Your task to perform on an android device: Search for beats solo 3 on target.com, select the first entry, add it to the cart, then select checkout. Image 0: 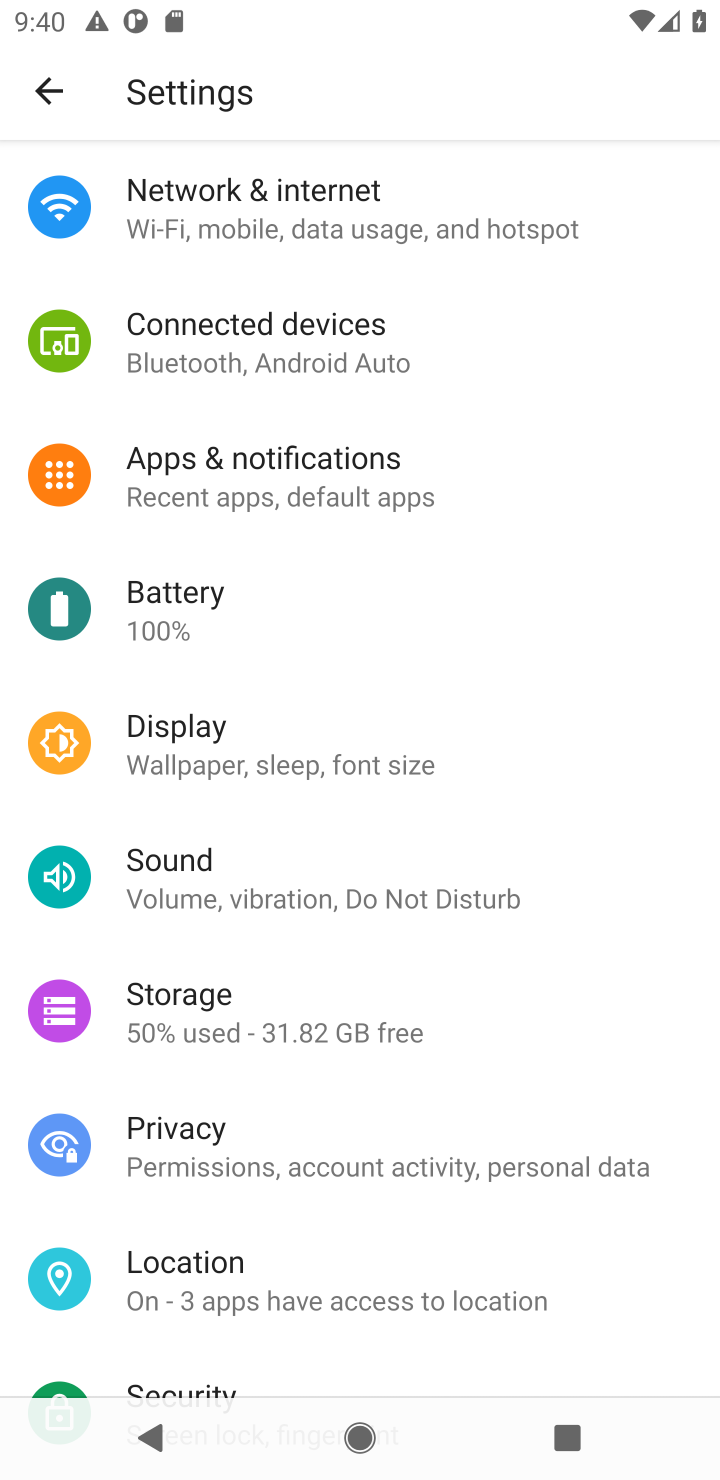
Step 0: press home button
Your task to perform on an android device: Search for beats solo 3 on target.com, select the first entry, add it to the cart, then select checkout. Image 1: 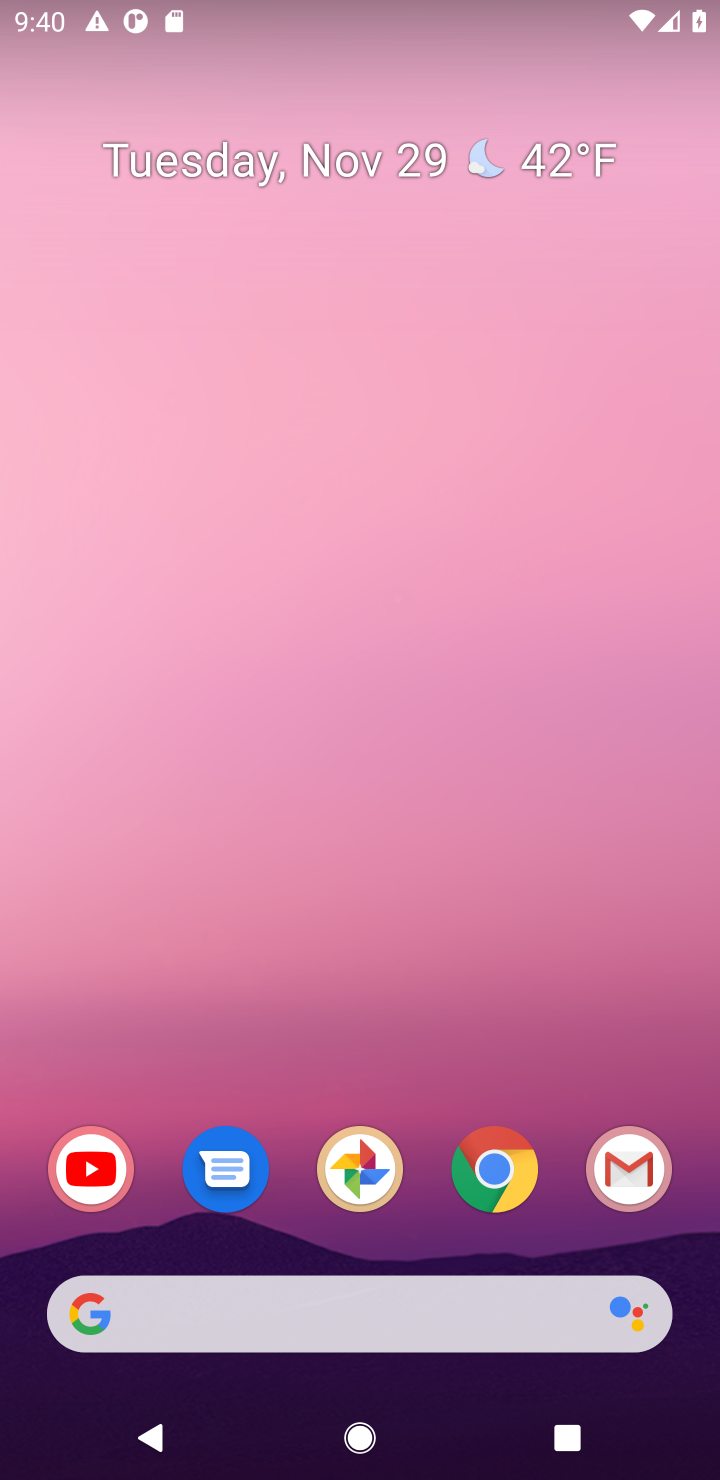
Step 1: click (224, 1344)
Your task to perform on an android device: Search for beats solo 3 on target.com, select the first entry, add it to the cart, then select checkout. Image 2: 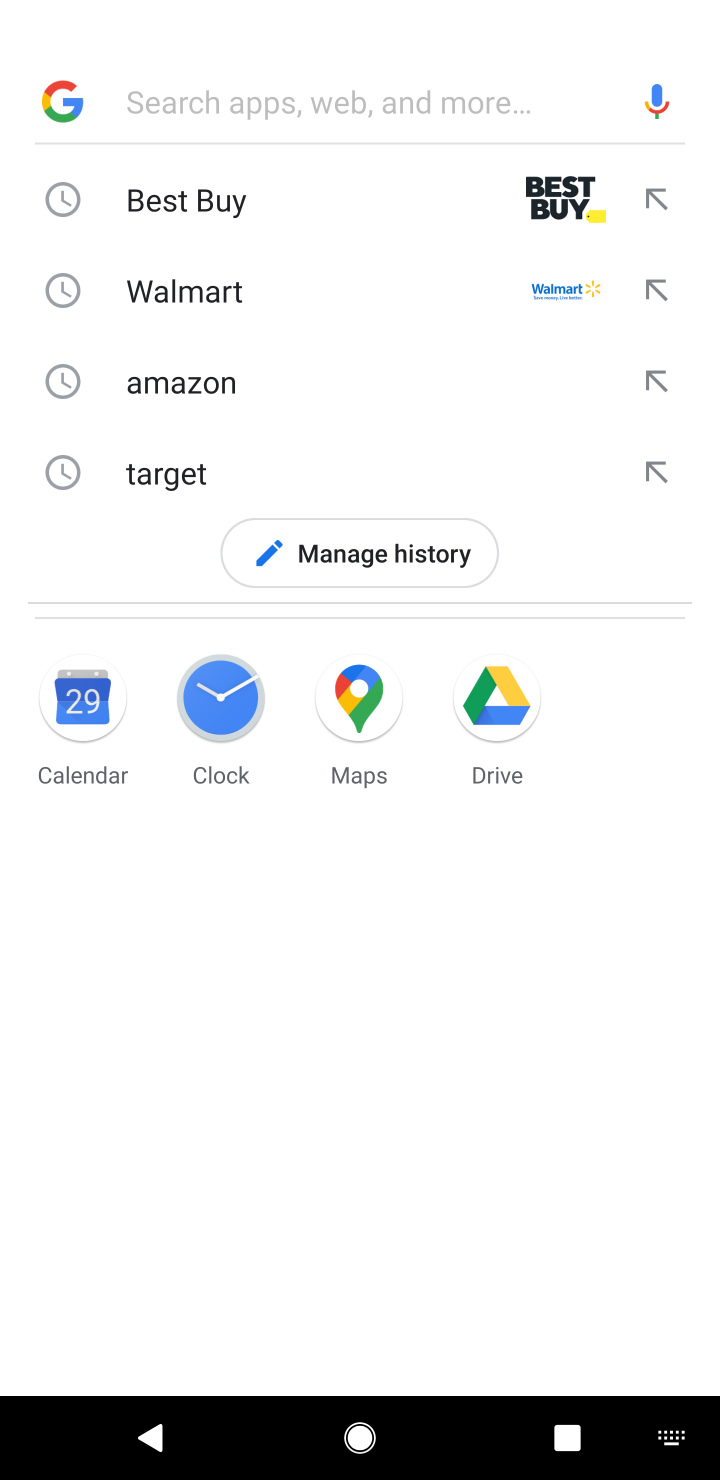
Step 2: type "beats solo 3"
Your task to perform on an android device: Search for beats solo 3 on target.com, select the first entry, add it to the cart, then select checkout. Image 3: 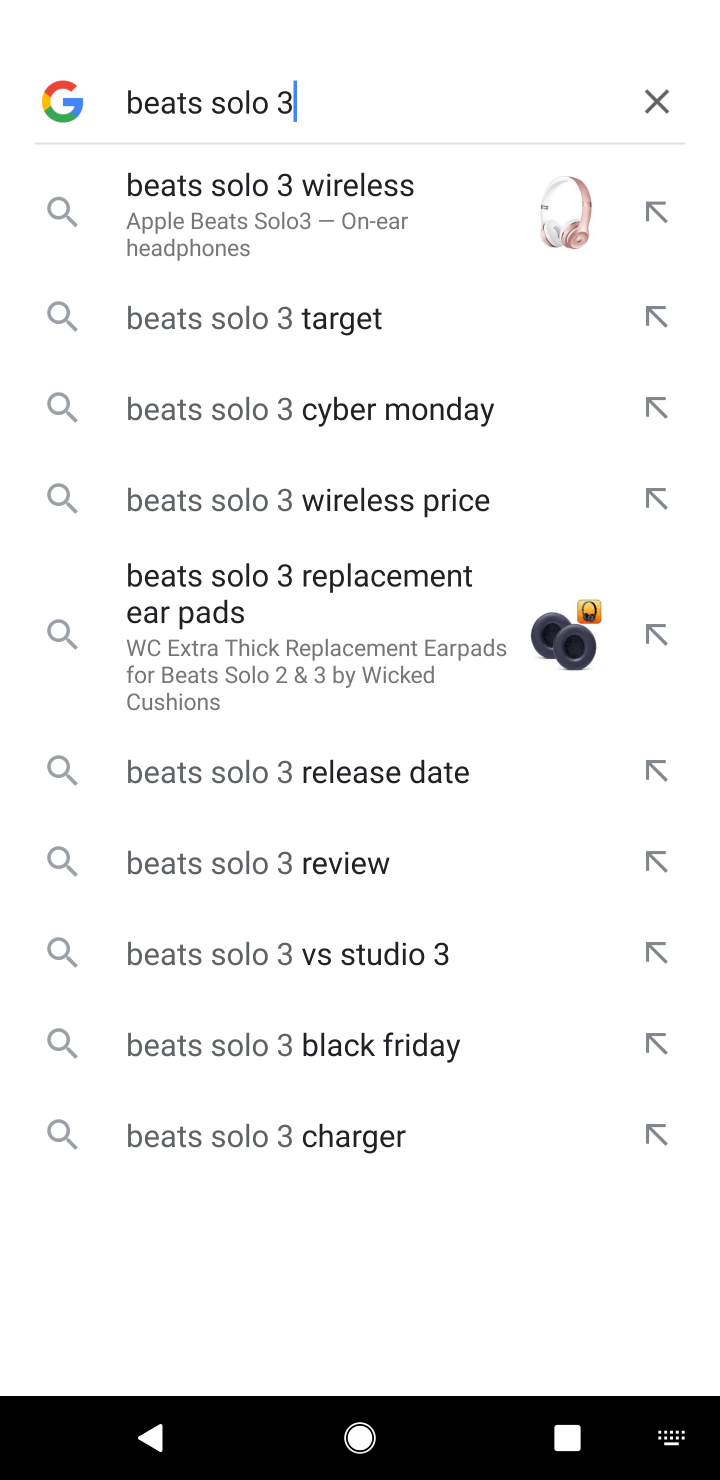
Step 3: click (277, 324)
Your task to perform on an android device: Search for beats solo 3 on target.com, select the first entry, add it to the cart, then select checkout. Image 4: 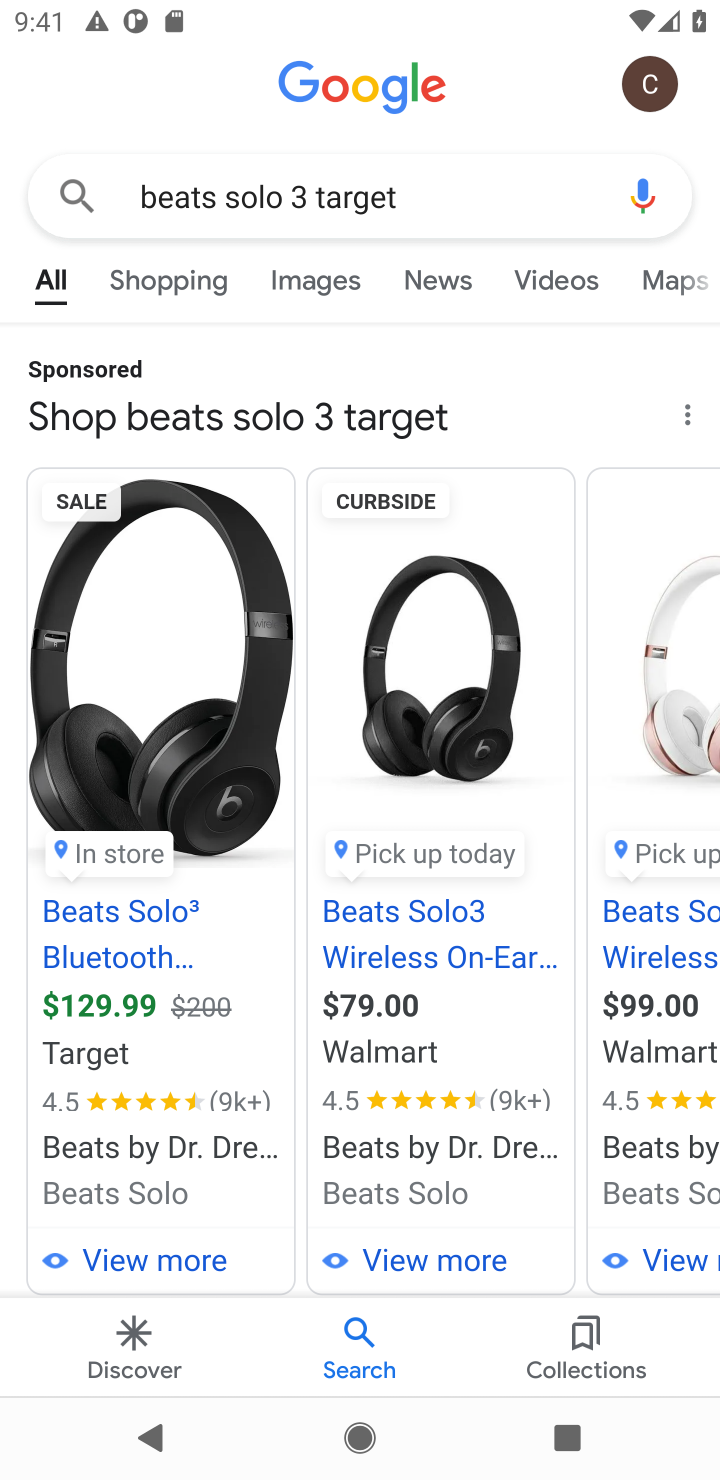
Step 4: click (157, 985)
Your task to perform on an android device: Search for beats solo 3 on target.com, select the first entry, add it to the cart, then select checkout. Image 5: 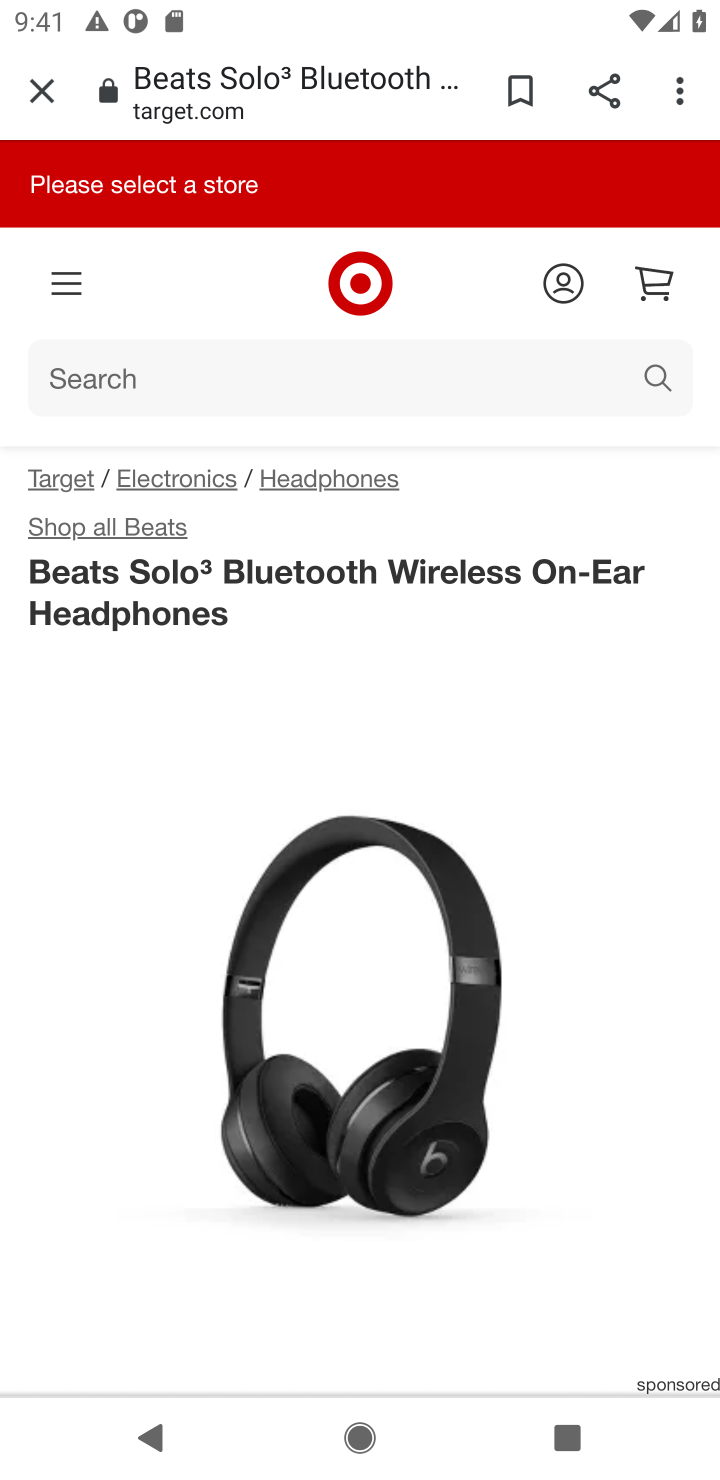
Step 5: drag from (417, 1078) to (431, 624)
Your task to perform on an android device: Search for beats solo 3 on target.com, select the first entry, add it to the cart, then select checkout. Image 6: 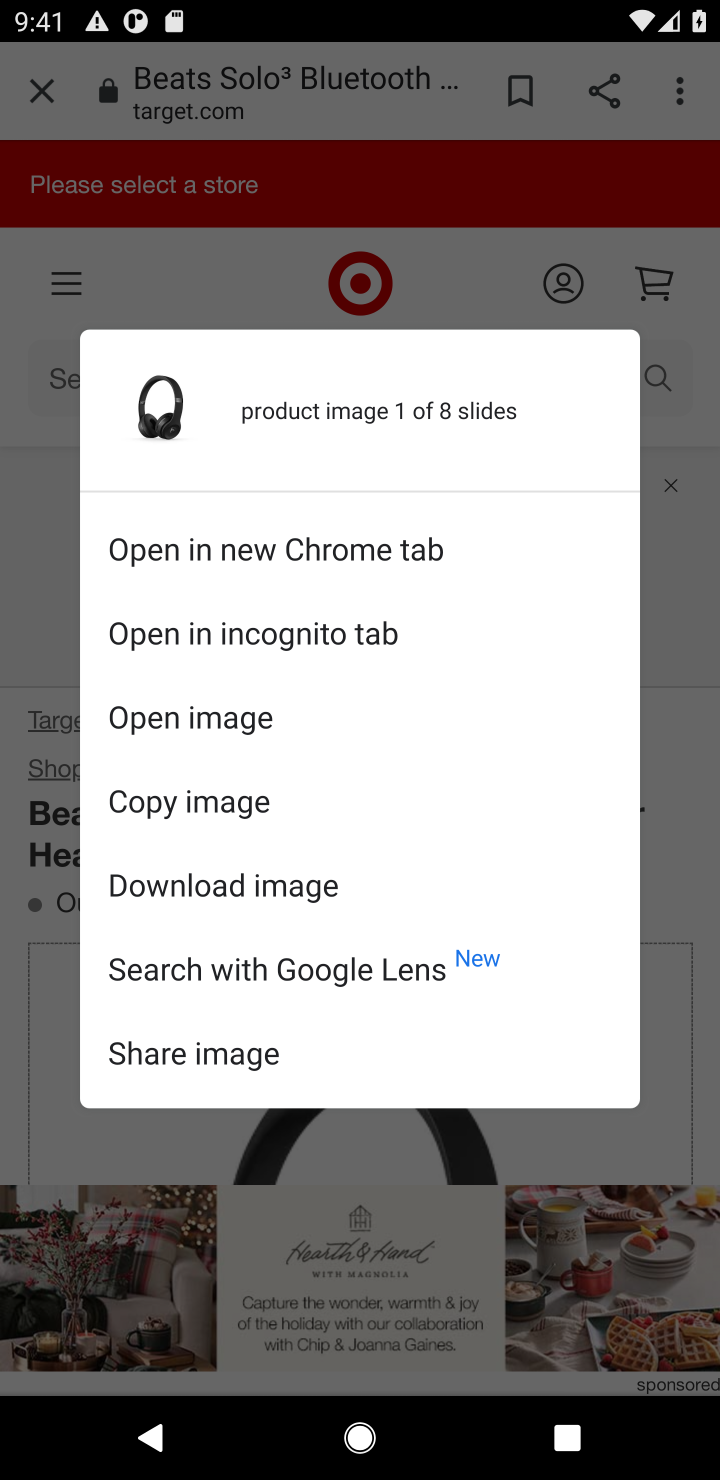
Step 6: click (405, 1359)
Your task to perform on an android device: Search for beats solo 3 on target.com, select the first entry, add it to the cart, then select checkout. Image 7: 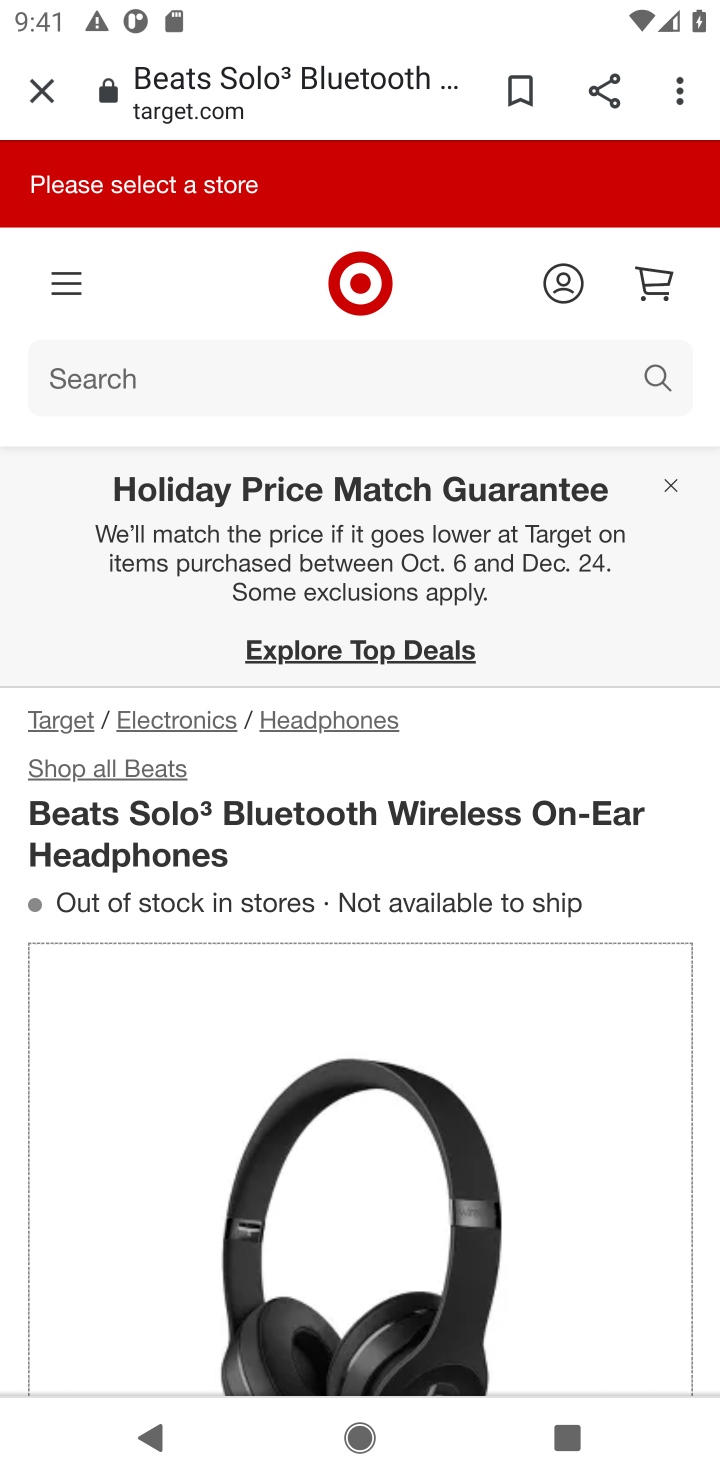
Step 7: drag from (678, 1242) to (563, 276)
Your task to perform on an android device: Search for beats solo 3 on target.com, select the first entry, add it to the cart, then select checkout. Image 8: 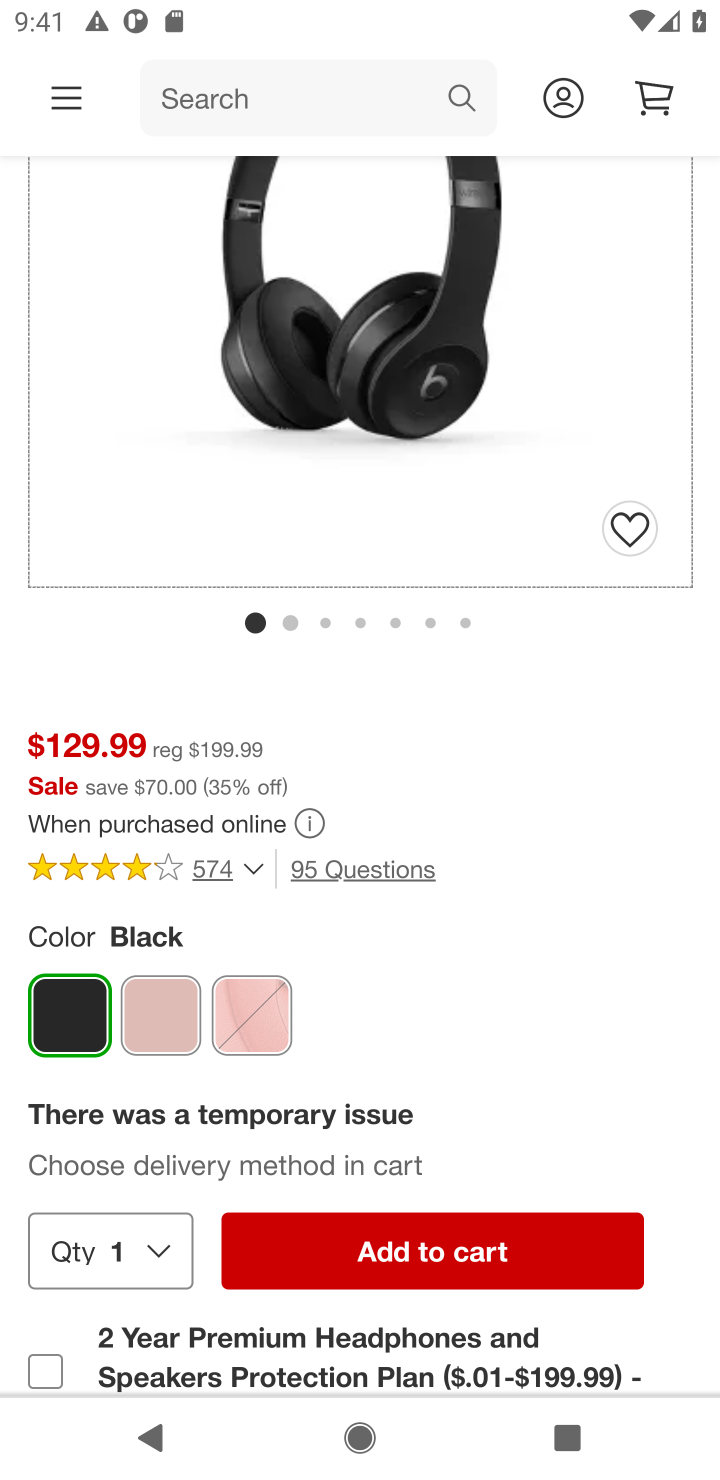
Step 8: click (512, 1217)
Your task to perform on an android device: Search for beats solo 3 on target.com, select the first entry, add it to the cart, then select checkout. Image 9: 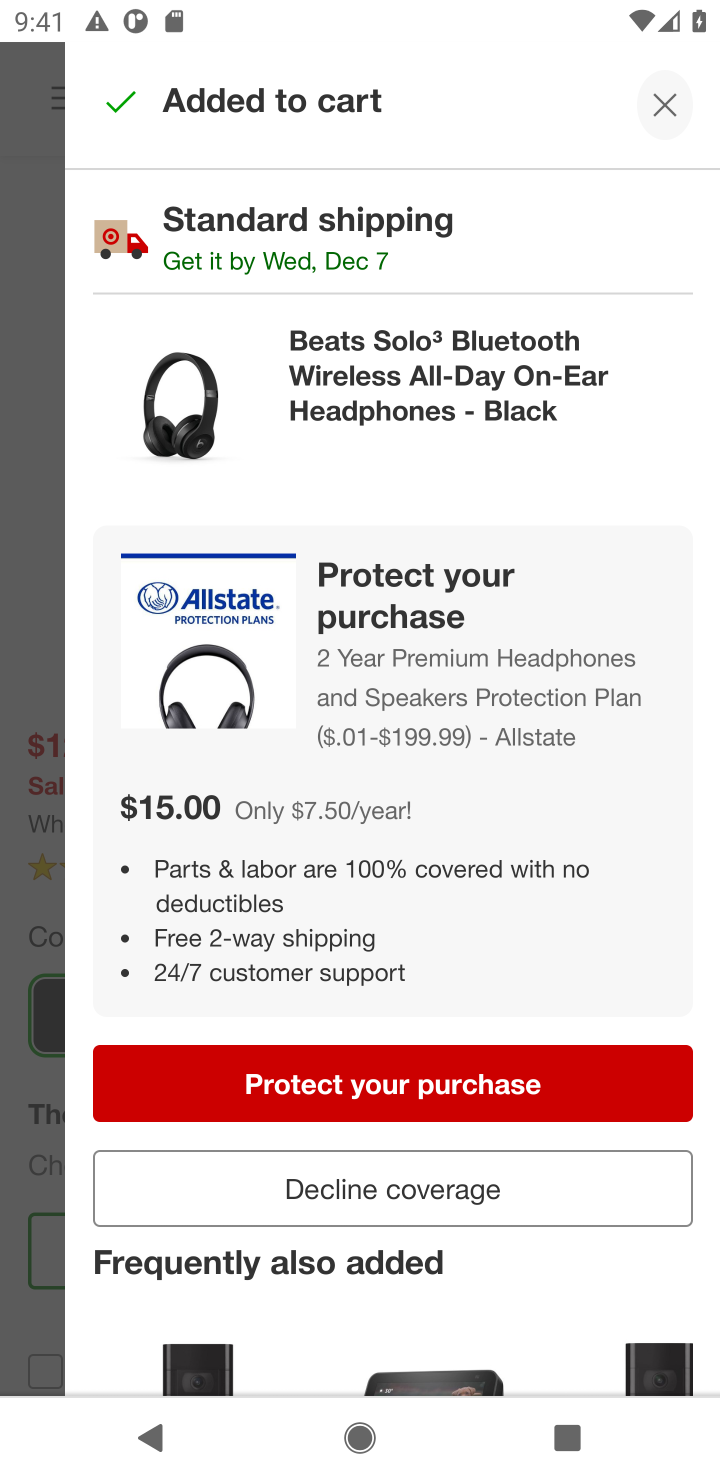
Step 9: task complete